Your task to perform on an android device: turn pop-ups on in chrome Image 0: 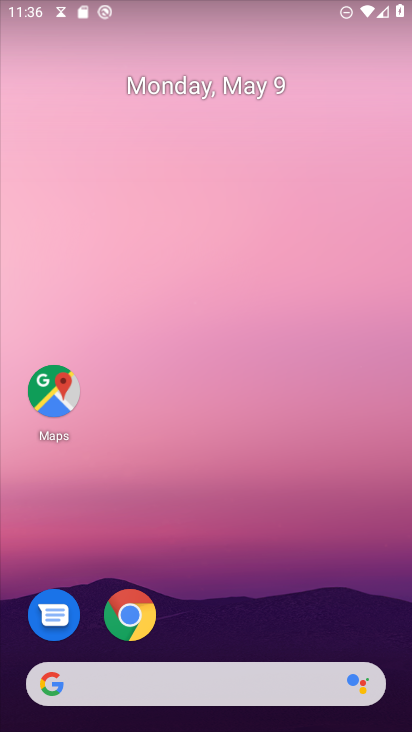
Step 0: click (130, 615)
Your task to perform on an android device: turn pop-ups on in chrome Image 1: 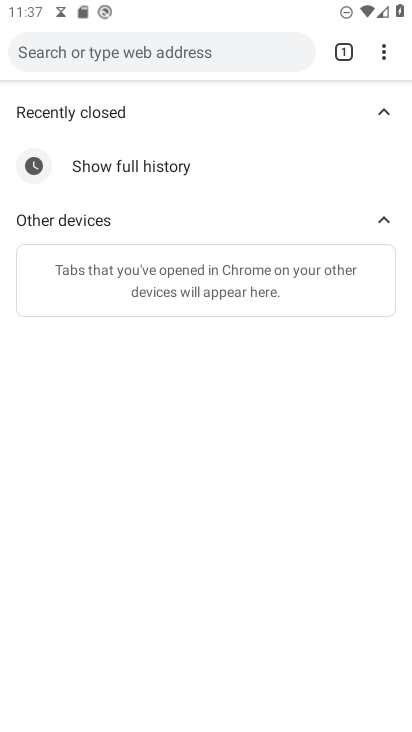
Step 1: click (384, 52)
Your task to perform on an android device: turn pop-ups on in chrome Image 2: 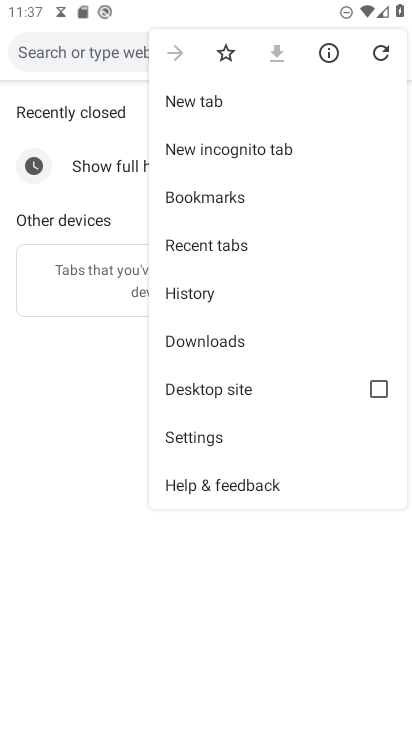
Step 2: click (200, 435)
Your task to perform on an android device: turn pop-ups on in chrome Image 3: 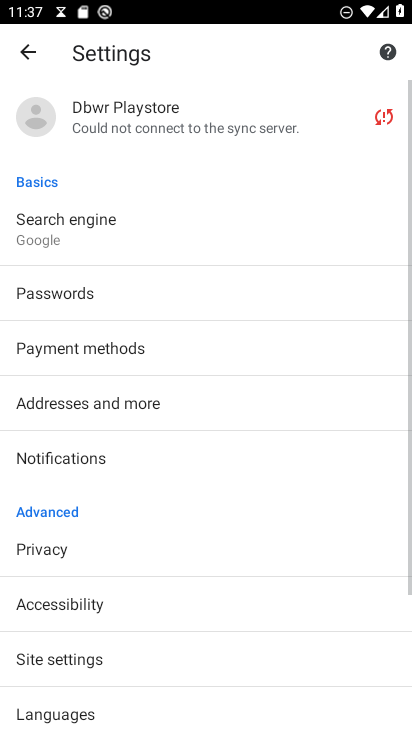
Step 3: drag from (146, 687) to (138, 408)
Your task to perform on an android device: turn pop-ups on in chrome Image 4: 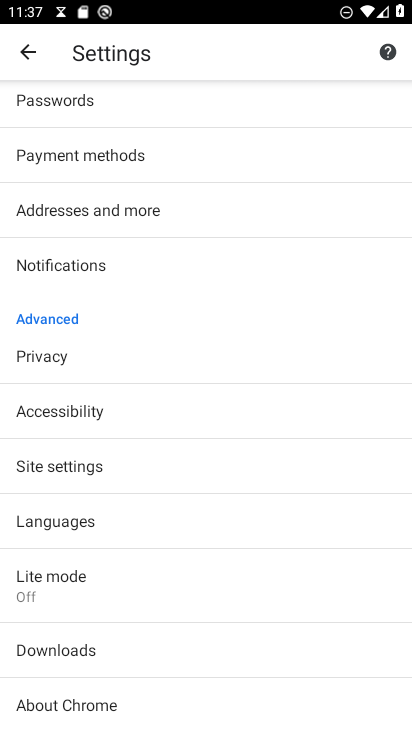
Step 4: click (75, 461)
Your task to perform on an android device: turn pop-ups on in chrome Image 5: 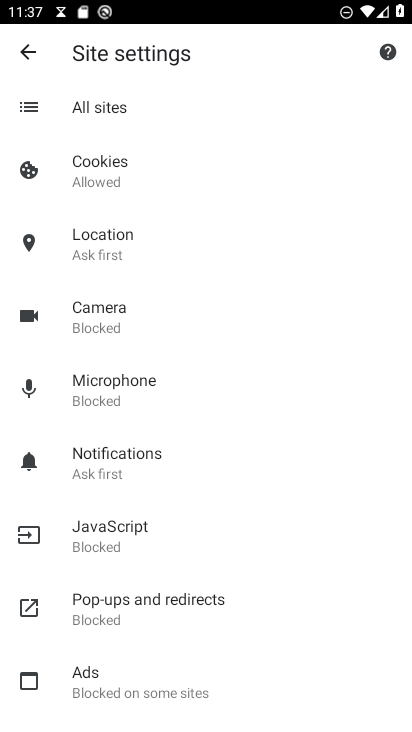
Step 5: click (127, 602)
Your task to perform on an android device: turn pop-ups on in chrome Image 6: 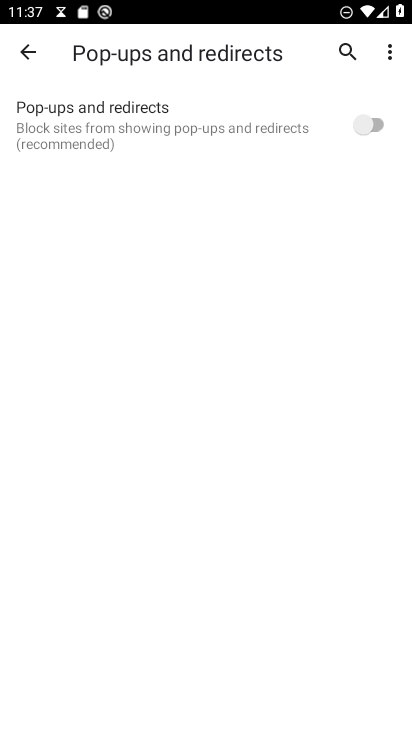
Step 6: click (378, 123)
Your task to perform on an android device: turn pop-ups on in chrome Image 7: 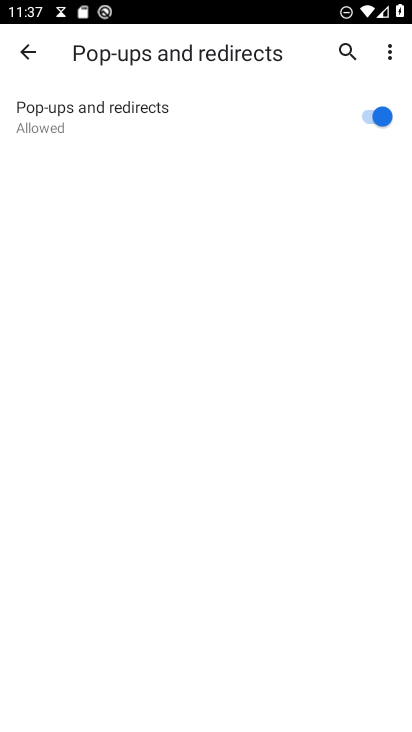
Step 7: task complete